Your task to perform on an android device: turn off data saver in the chrome app Image 0: 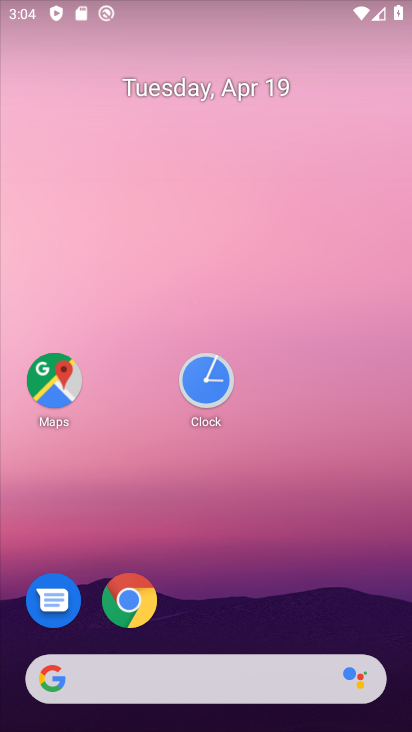
Step 0: drag from (236, 583) to (132, 157)
Your task to perform on an android device: turn off data saver in the chrome app Image 1: 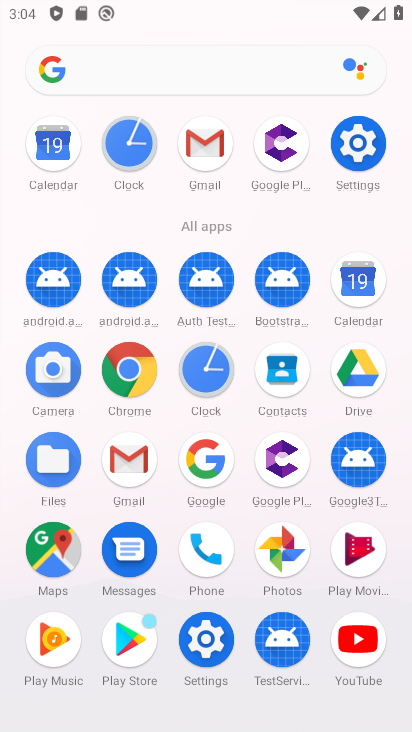
Step 1: click (137, 353)
Your task to perform on an android device: turn off data saver in the chrome app Image 2: 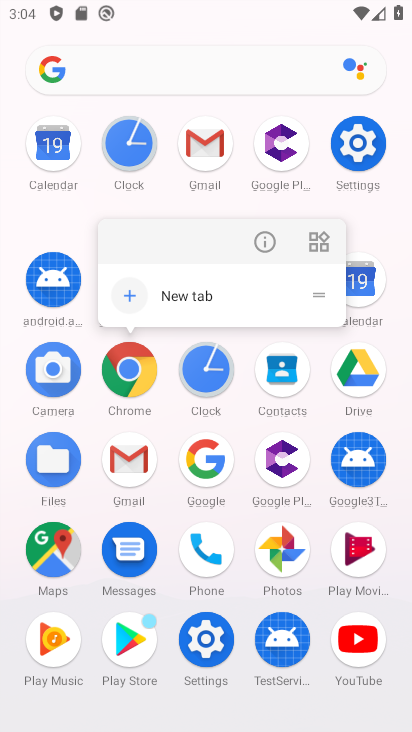
Step 2: click (128, 362)
Your task to perform on an android device: turn off data saver in the chrome app Image 3: 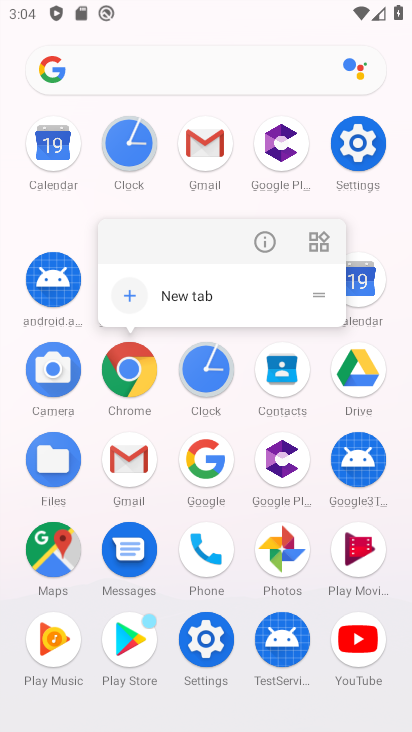
Step 3: click (127, 363)
Your task to perform on an android device: turn off data saver in the chrome app Image 4: 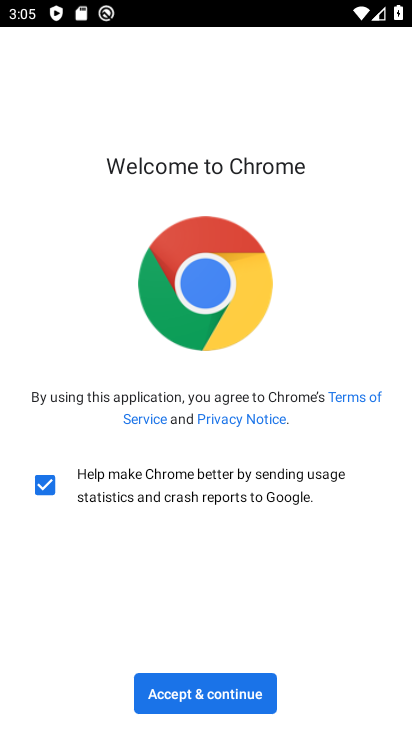
Step 4: click (222, 710)
Your task to perform on an android device: turn off data saver in the chrome app Image 5: 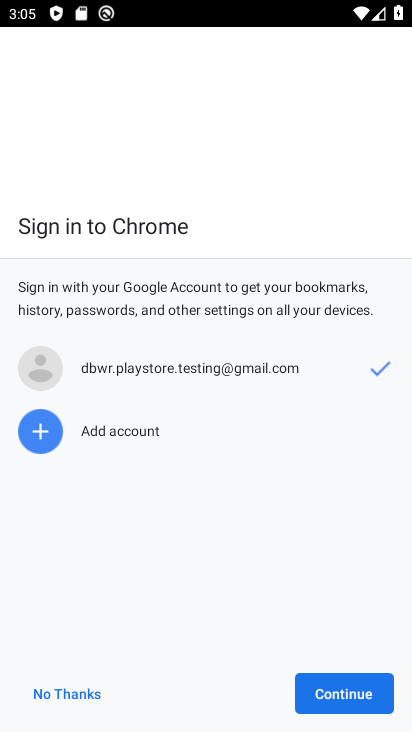
Step 5: click (358, 694)
Your task to perform on an android device: turn off data saver in the chrome app Image 6: 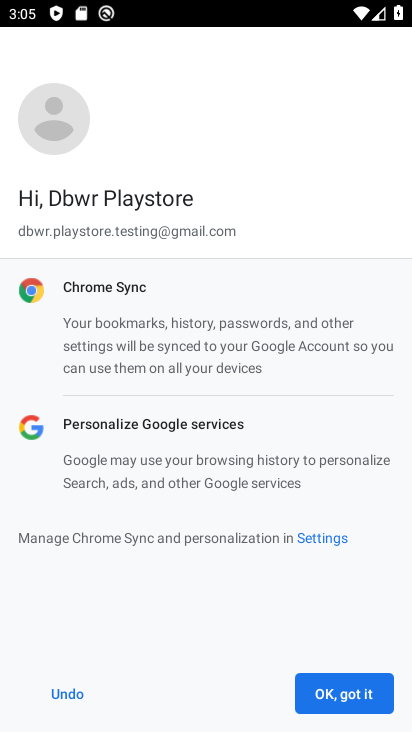
Step 6: click (364, 692)
Your task to perform on an android device: turn off data saver in the chrome app Image 7: 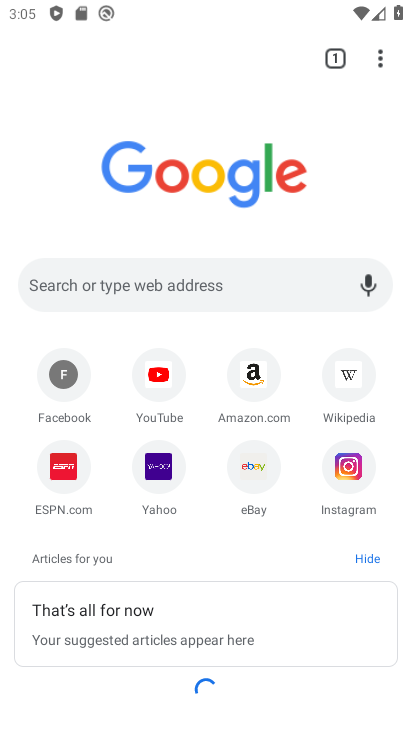
Step 7: click (383, 54)
Your task to perform on an android device: turn off data saver in the chrome app Image 8: 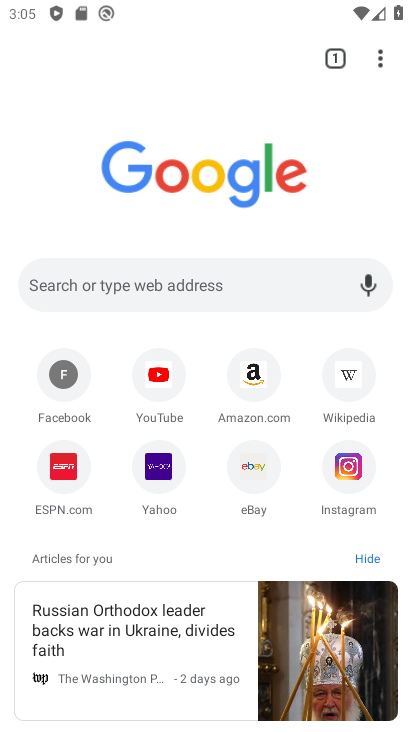
Step 8: click (379, 62)
Your task to perform on an android device: turn off data saver in the chrome app Image 9: 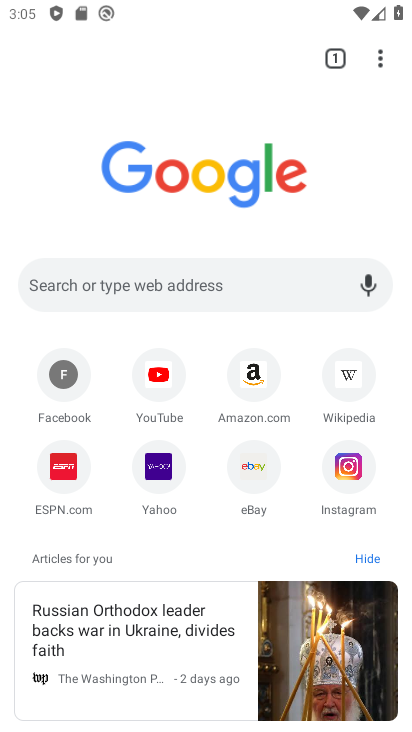
Step 9: click (381, 62)
Your task to perform on an android device: turn off data saver in the chrome app Image 10: 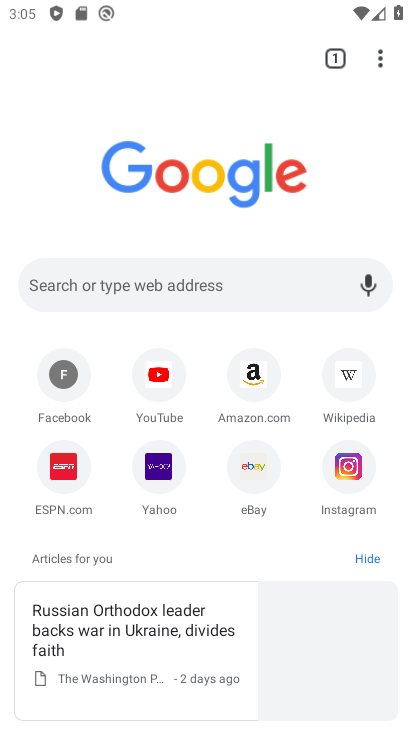
Step 10: click (380, 65)
Your task to perform on an android device: turn off data saver in the chrome app Image 11: 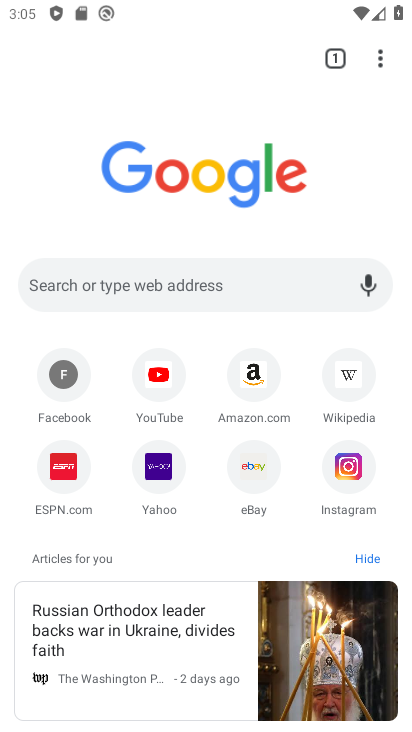
Step 11: click (377, 57)
Your task to perform on an android device: turn off data saver in the chrome app Image 12: 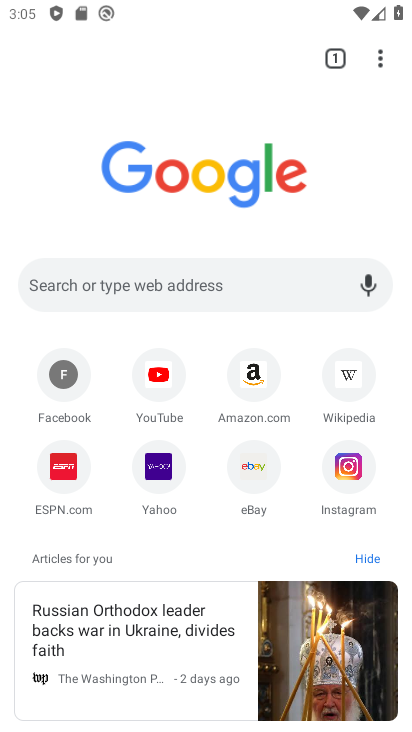
Step 12: click (383, 56)
Your task to perform on an android device: turn off data saver in the chrome app Image 13: 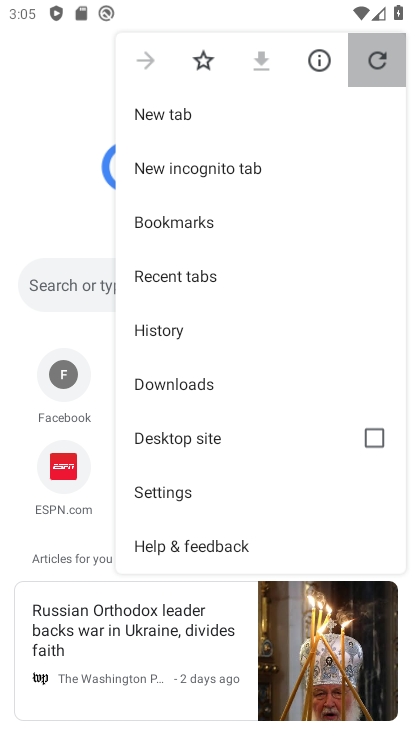
Step 13: click (384, 57)
Your task to perform on an android device: turn off data saver in the chrome app Image 14: 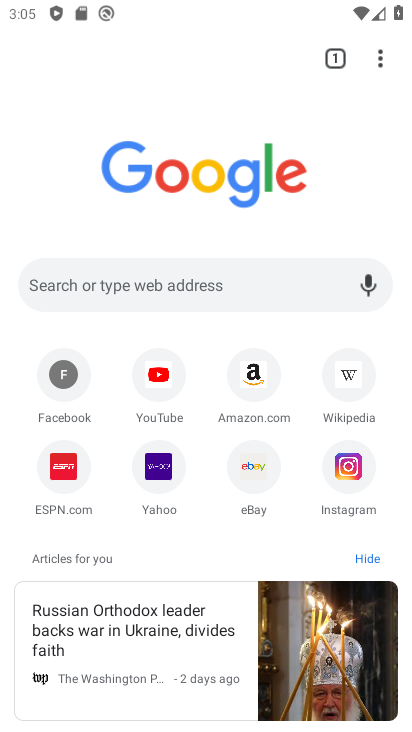
Step 14: click (377, 60)
Your task to perform on an android device: turn off data saver in the chrome app Image 15: 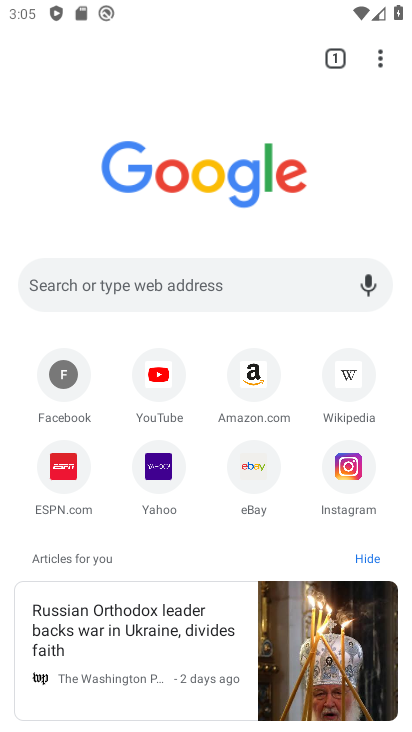
Step 15: click (376, 60)
Your task to perform on an android device: turn off data saver in the chrome app Image 16: 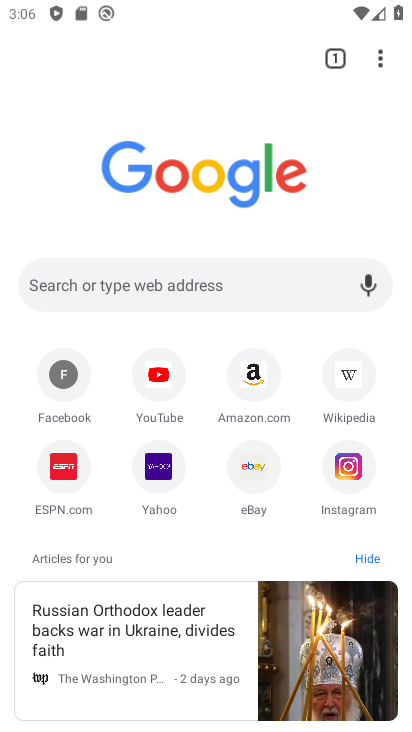
Step 16: click (375, 56)
Your task to perform on an android device: turn off data saver in the chrome app Image 17: 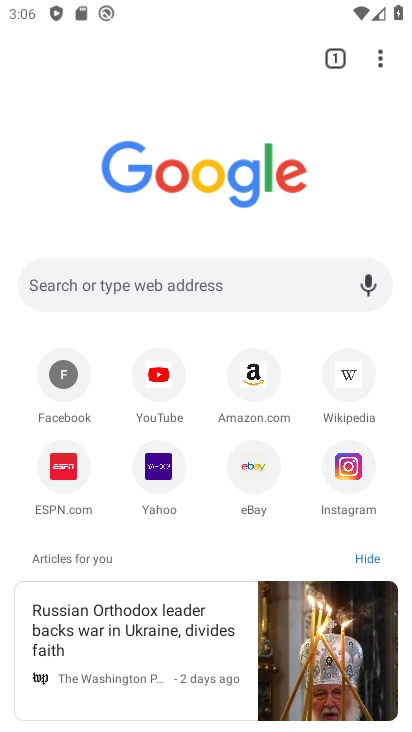
Step 17: click (382, 56)
Your task to perform on an android device: turn off data saver in the chrome app Image 18: 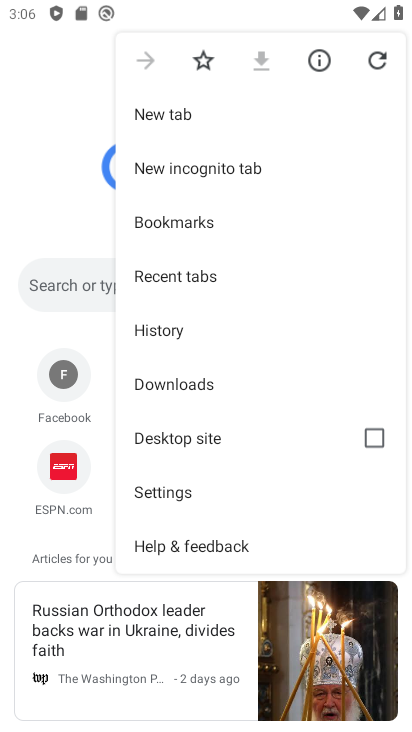
Step 18: click (155, 496)
Your task to perform on an android device: turn off data saver in the chrome app Image 19: 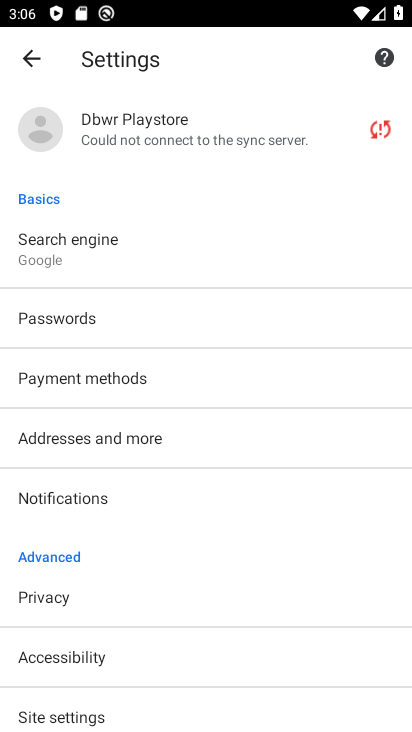
Step 19: drag from (107, 332) to (54, 61)
Your task to perform on an android device: turn off data saver in the chrome app Image 20: 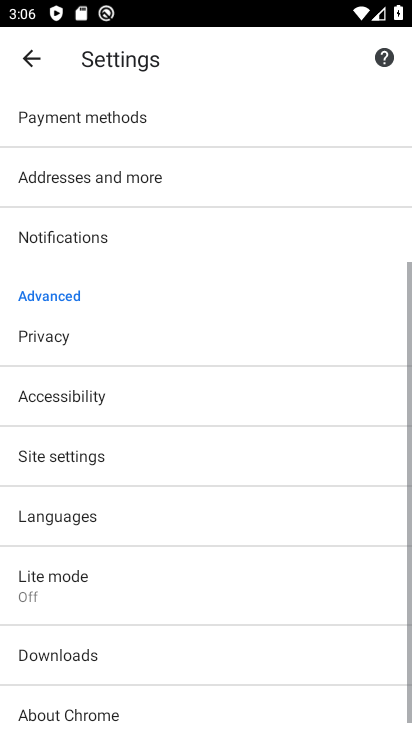
Step 20: drag from (250, 460) to (229, 203)
Your task to perform on an android device: turn off data saver in the chrome app Image 21: 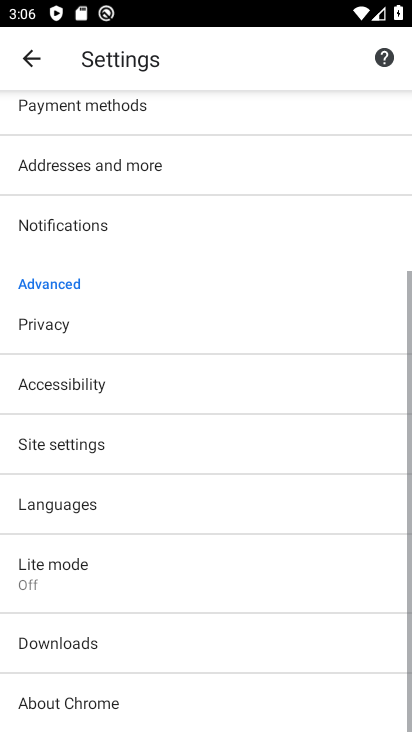
Step 21: click (53, 561)
Your task to perform on an android device: turn off data saver in the chrome app Image 22: 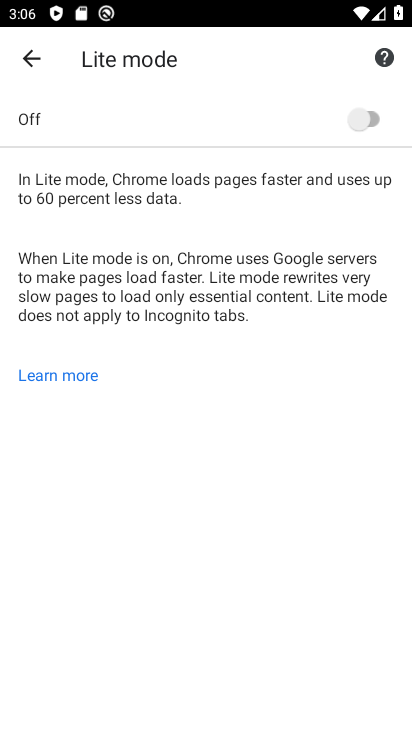
Step 22: task complete